Your task to perform on an android device: Search for usb-b on ebay, select the first entry, and add it to the cart. Image 0: 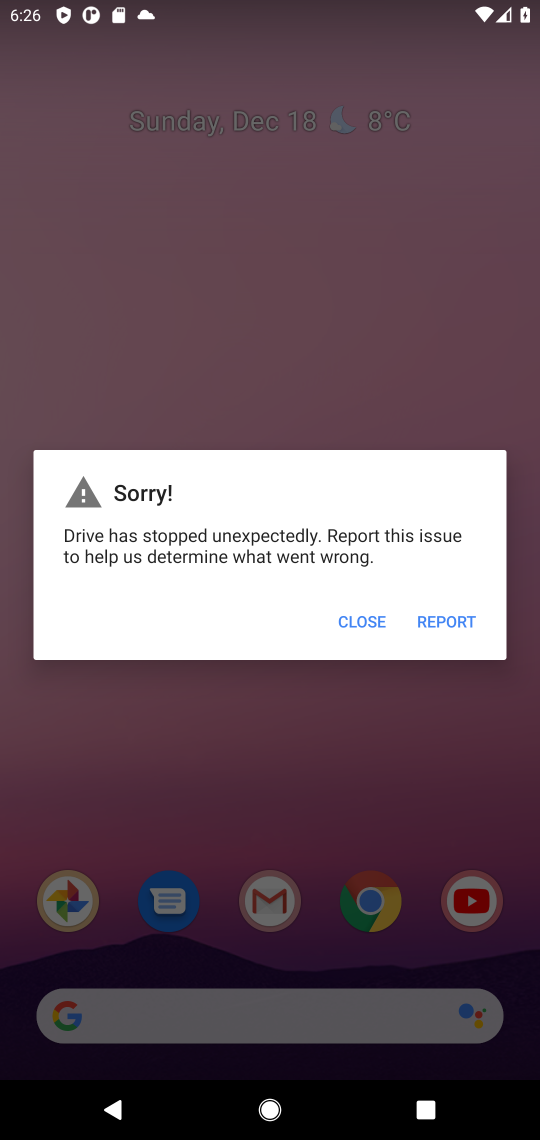
Step 0: click (368, 610)
Your task to perform on an android device: Search for usb-b on ebay, select the first entry, and add it to the cart. Image 1: 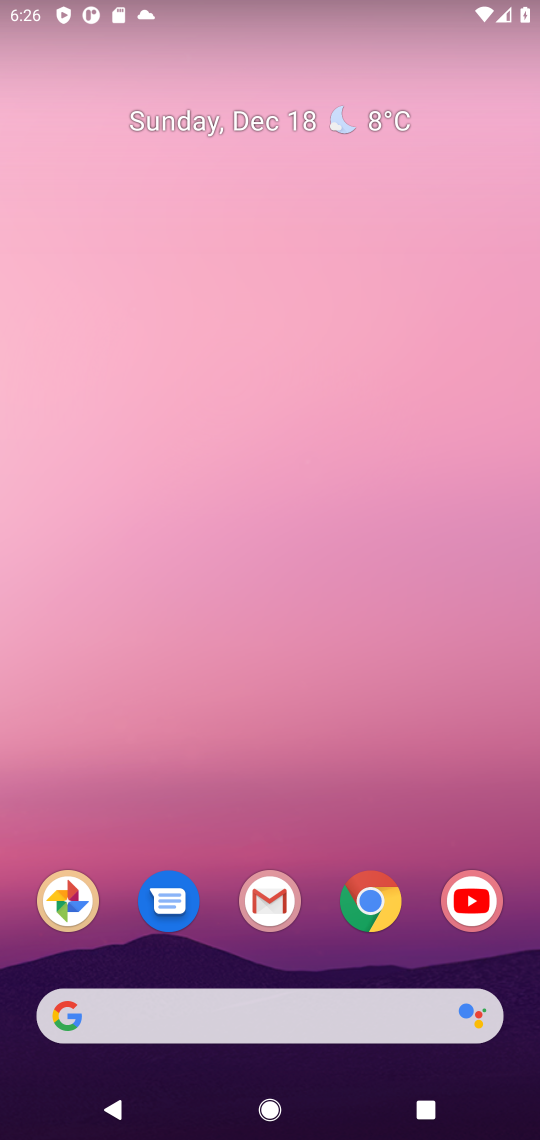
Step 1: click (356, 1006)
Your task to perform on an android device: Search for usb-b on ebay, select the first entry, and add it to the cart. Image 2: 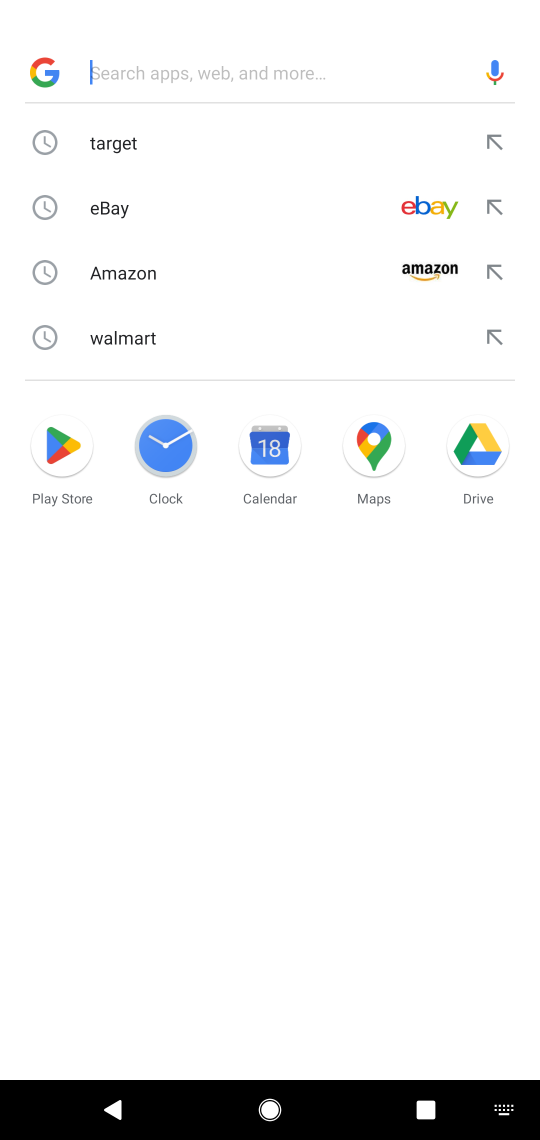
Step 2: click (232, 206)
Your task to perform on an android device: Search for usb-b on ebay, select the first entry, and add it to the cart. Image 3: 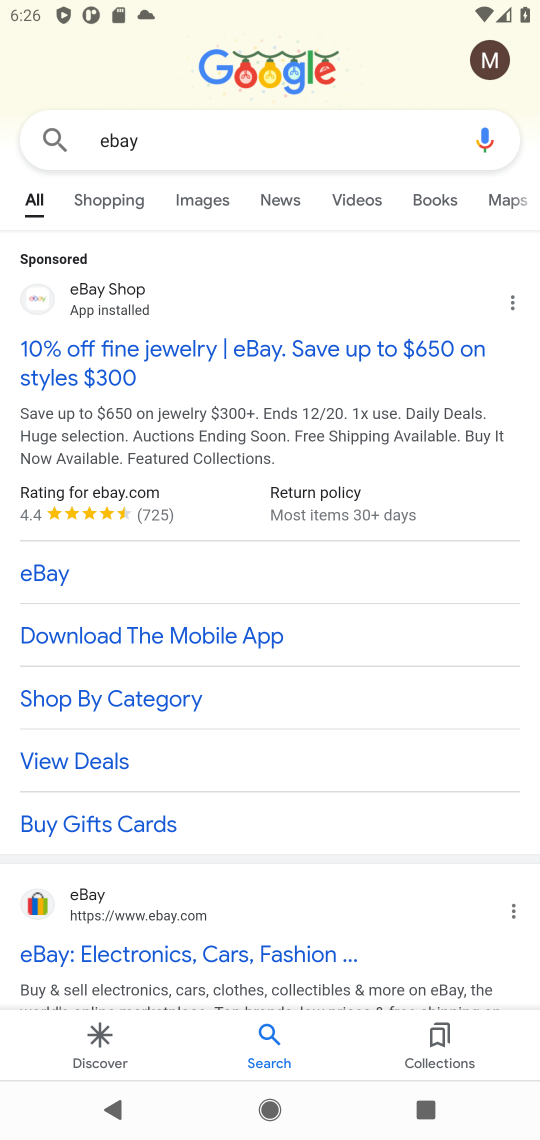
Step 3: click (225, 358)
Your task to perform on an android device: Search for usb-b on ebay, select the first entry, and add it to the cart. Image 4: 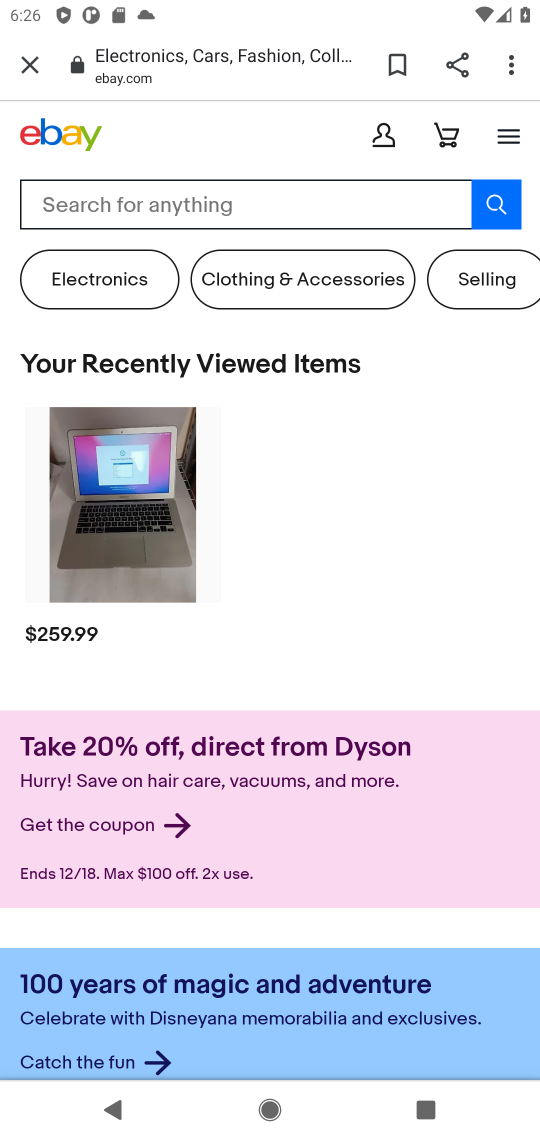
Step 4: click (232, 216)
Your task to perform on an android device: Search for usb-b on ebay, select the first entry, and add it to the cart. Image 5: 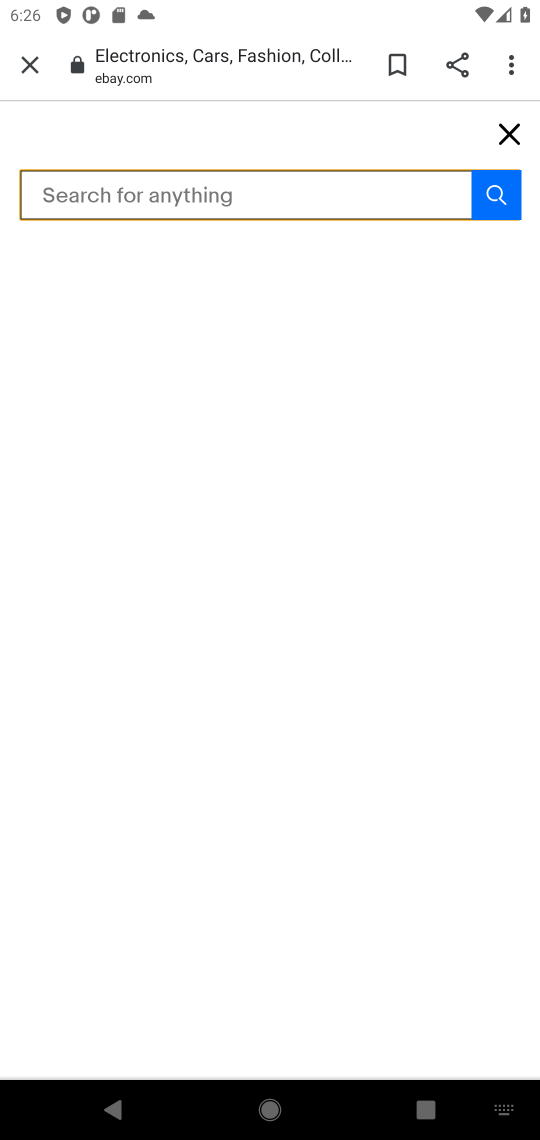
Step 5: type "usb-b"
Your task to perform on an android device: Search for usb-b on ebay, select the first entry, and add it to the cart. Image 6: 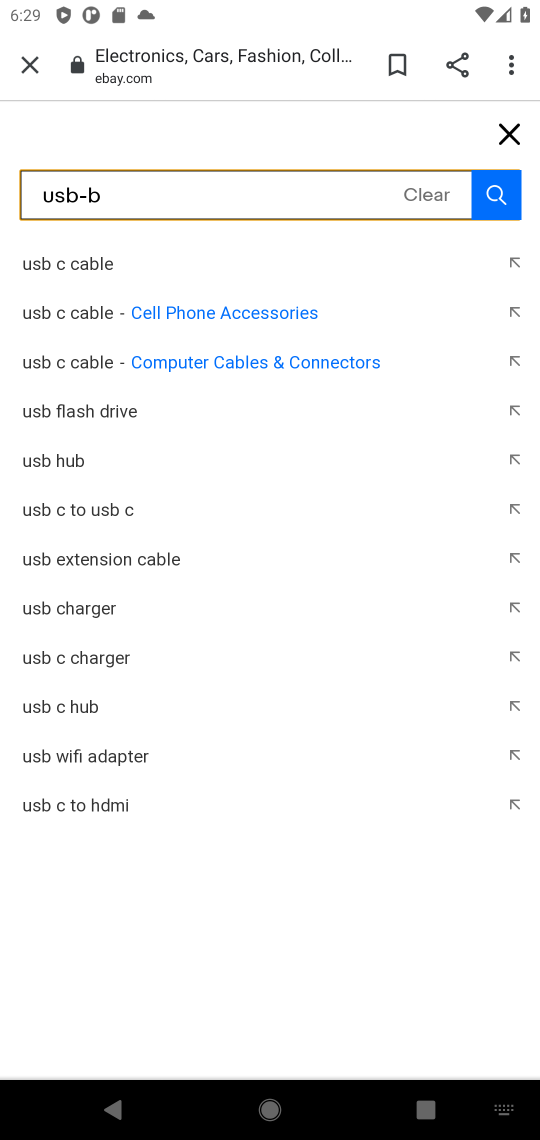
Step 6: click (85, 245)
Your task to perform on an android device: Search for usb-b on ebay, select the first entry, and add it to the cart. Image 7: 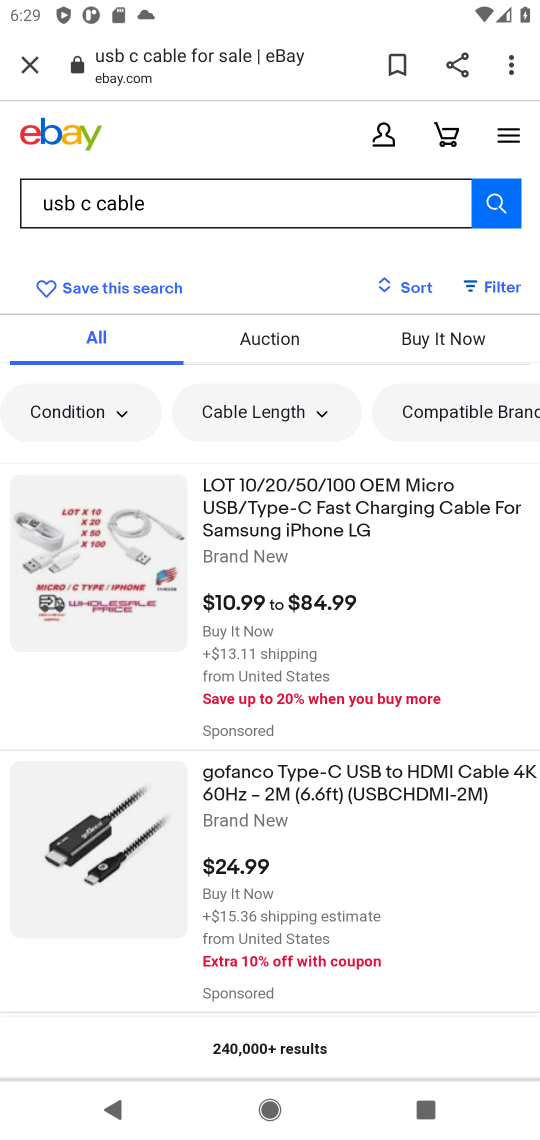
Step 7: click (175, 554)
Your task to perform on an android device: Search for usb-b on ebay, select the first entry, and add it to the cart. Image 8: 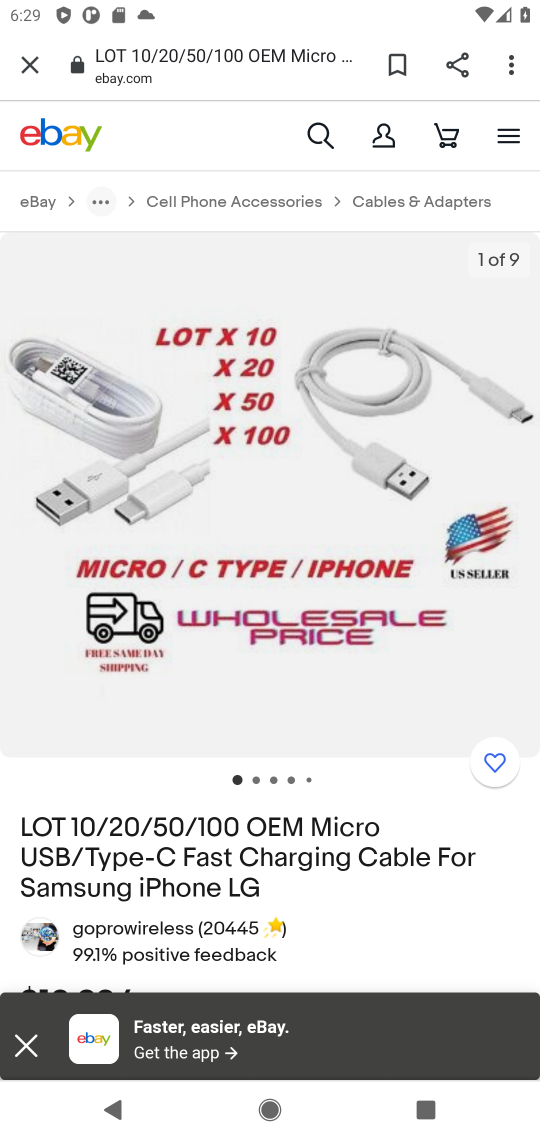
Step 8: drag from (189, 809) to (207, 453)
Your task to perform on an android device: Search for usb-b on ebay, select the first entry, and add it to the cart. Image 9: 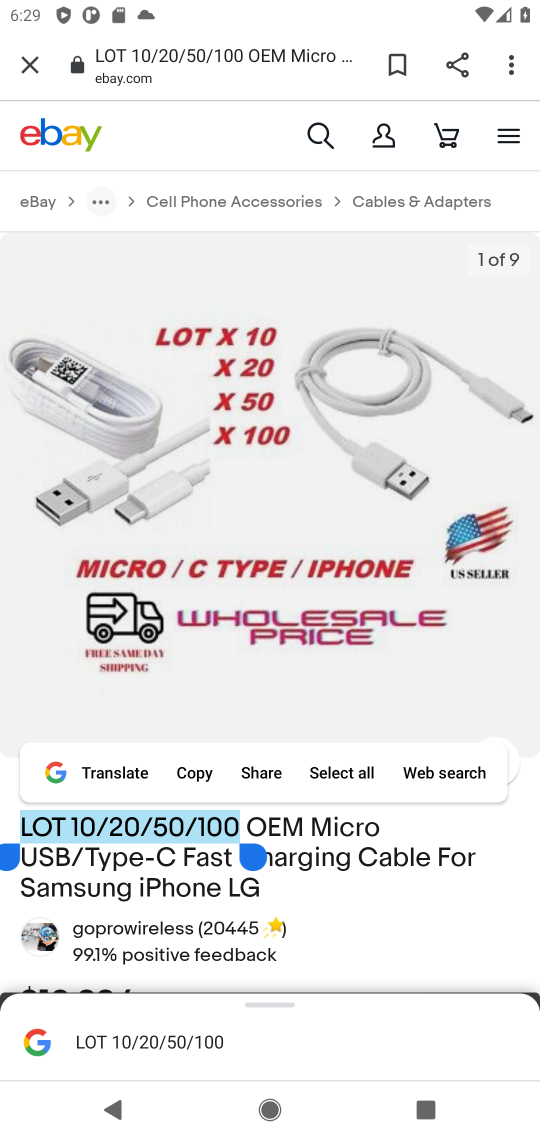
Step 9: click (377, 938)
Your task to perform on an android device: Search for usb-b on ebay, select the first entry, and add it to the cart. Image 10: 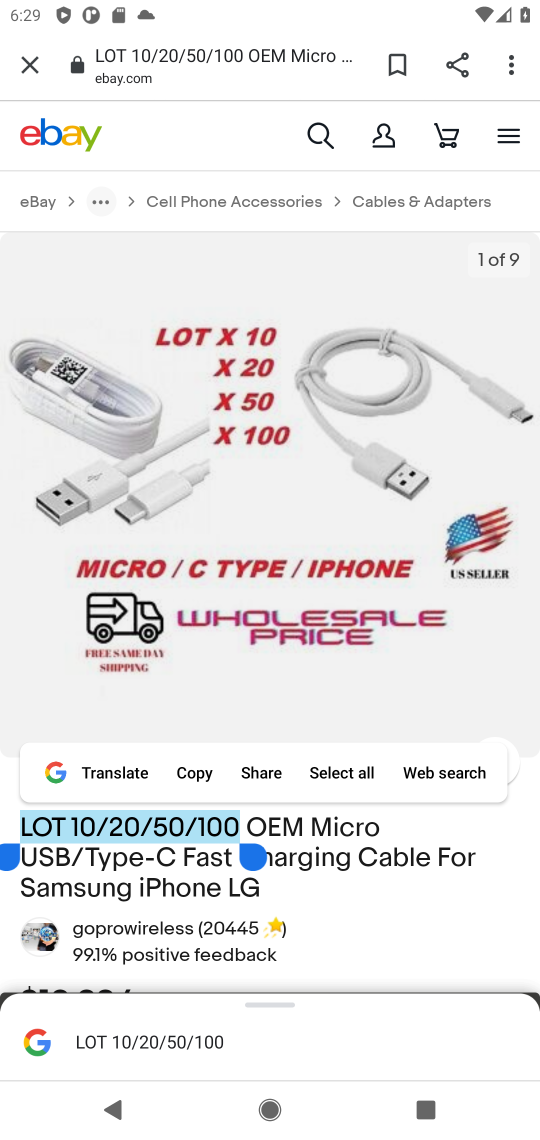
Step 10: task complete